Your task to perform on an android device: Search for sushi restaurants on Maps Image 0: 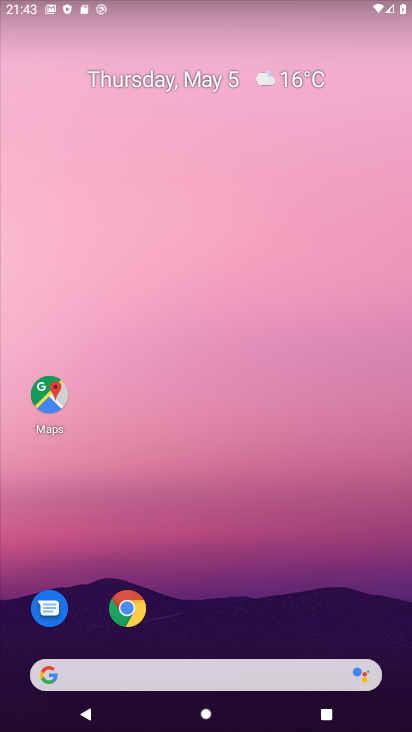
Step 0: click (47, 404)
Your task to perform on an android device: Search for sushi restaurants on Maps Image 1: 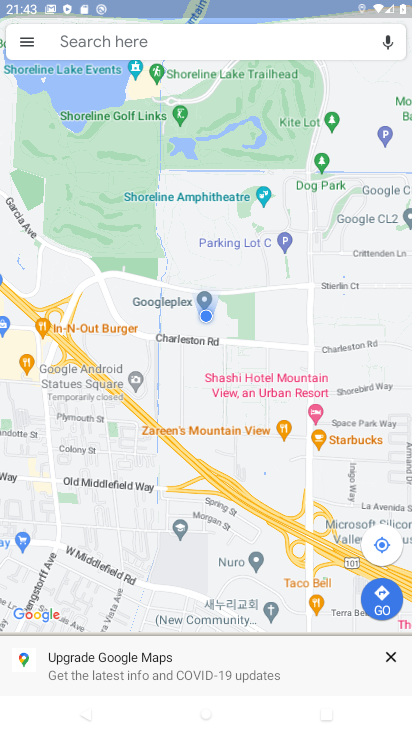
Step 1: click (112, 38)
Your task to perform on an android device: Search for sushi restaurants on Maps Image 2: 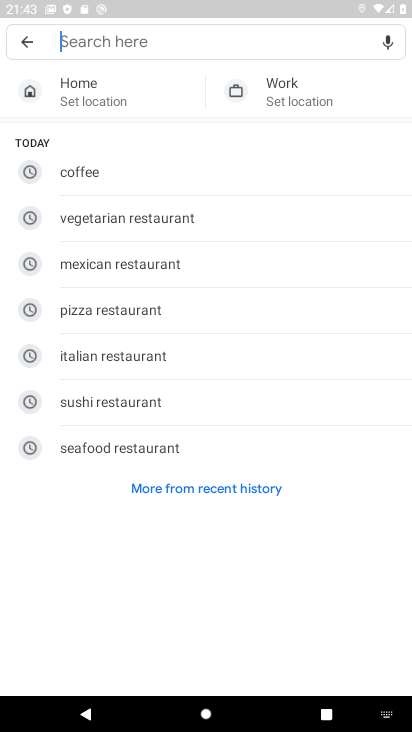
Step 2: type " sushi restaurants"
Your task to perform on an android device: Search for sushi restaurants on Maps Image 3: 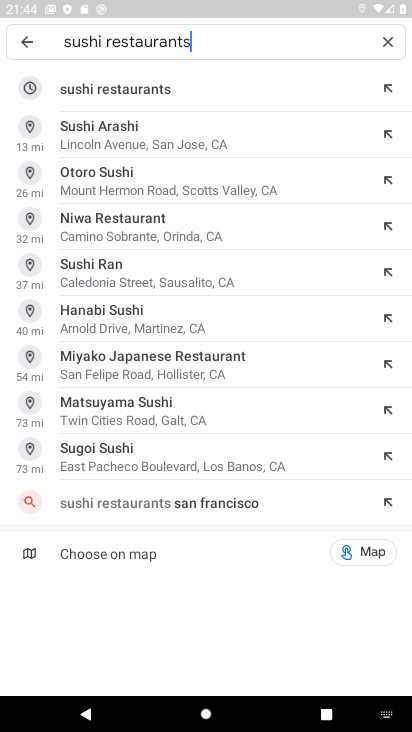
Step 3: click (145, 88)
Your task to perform on an android device: Search for sushi restaurants on Maps Image 4: 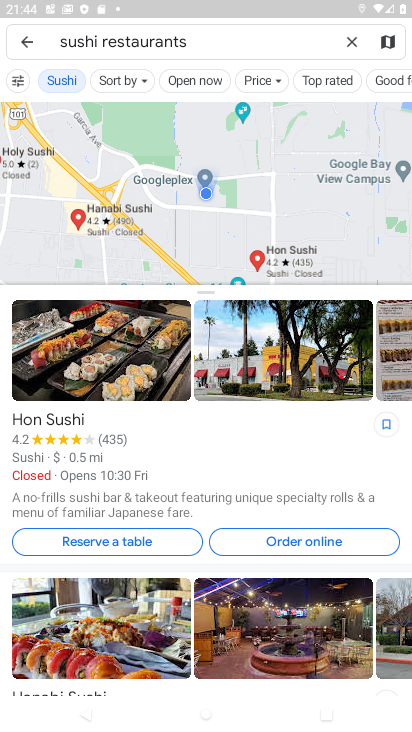
Step 4: task complete